Your task to perform on an android device: check out phone information Image 0: 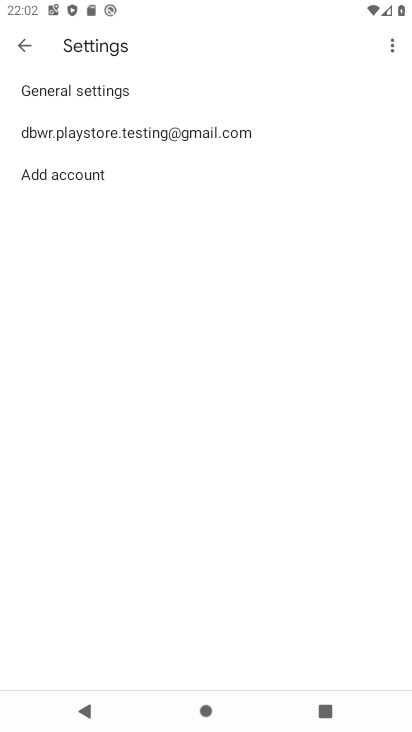
Step 0: press home button
Your task to perform on an android device: check out phone information Image 1: 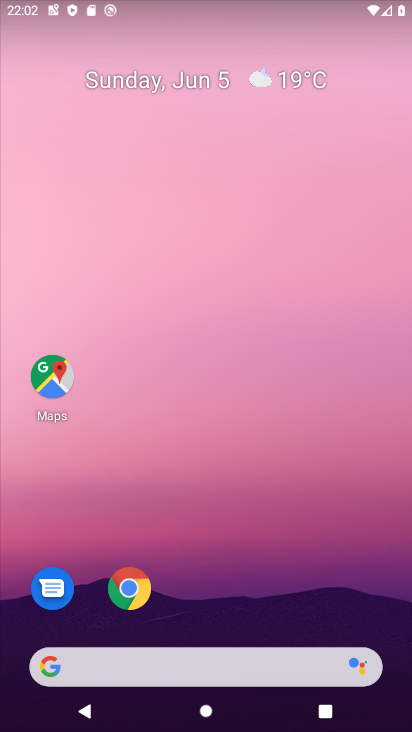
Step 1: drag from (363, 593) to (370, 199)
Your task to perform on an android device: check out phone information Image 2: 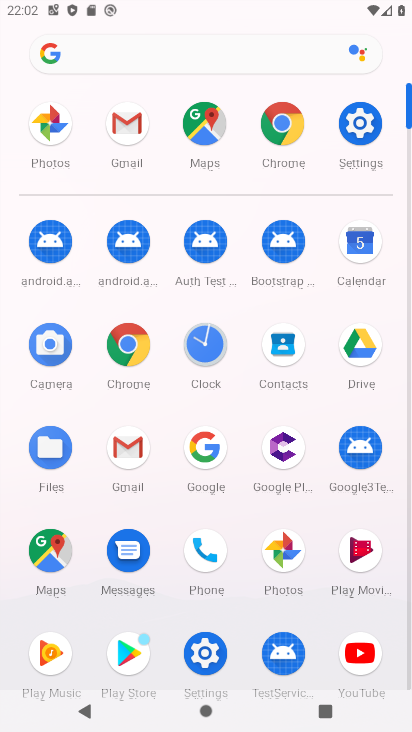
Step 2: click (206, 548)
Your task to perform on an android device: check out phone information Image 3: 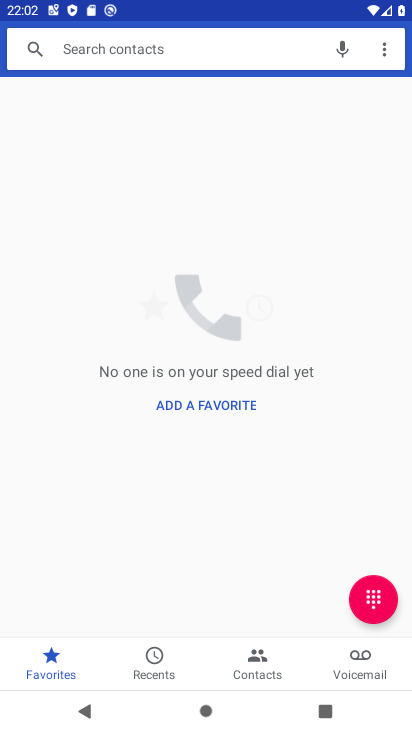
Step 3: click (148, 660)
Your task to perform on an android device: check out phone information Image 4: 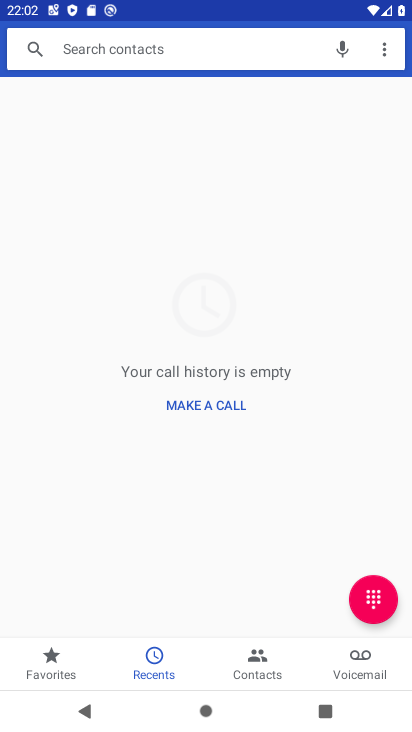
Step 4: task complete